Your task to perform on an android device: turn off notifications settings in the gmail app Image 0: 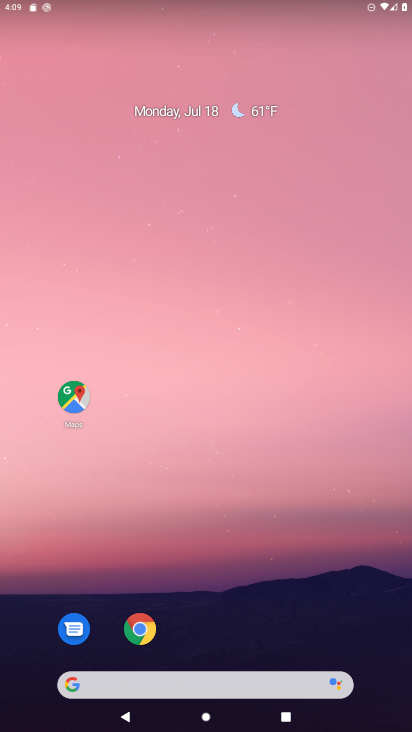
Step 0: drag from (246, 667) to (268, 337)
Your task to perform on an android device: turn off notifications settings in the gmail app Image 1: 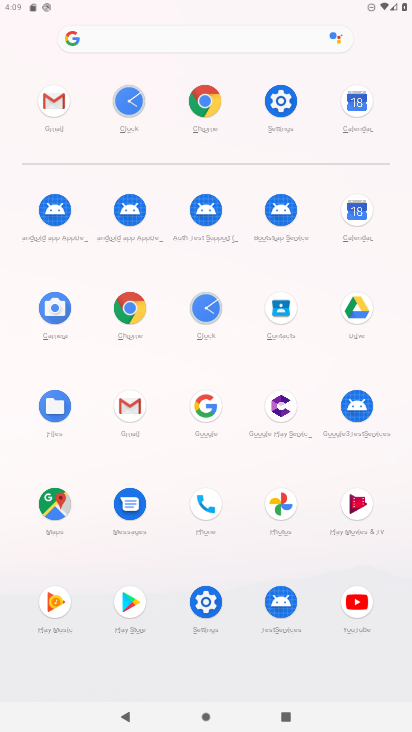
Step 1: click (126, 416)
Your task to perform on an android device: turn off notifications settings in the gmail app Image 2: 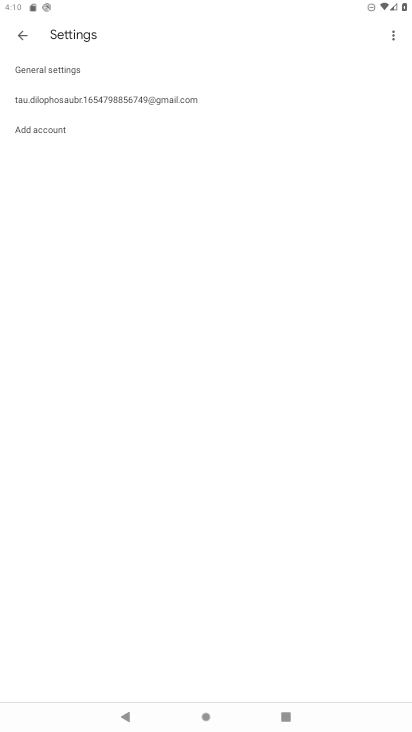
Step 2: click (68, 92)
Your task to perform on an android device: turn off notifications settings in the gmail app Image 3: 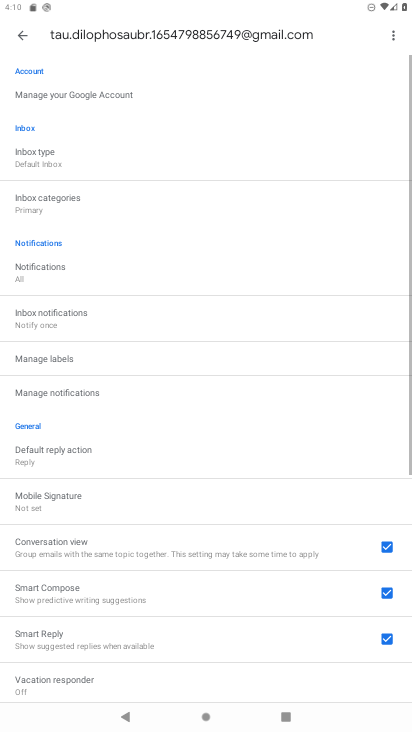
Step 3: click (70, 400)
Your task to perform on an android device: turn off notifications settings in the gmail app Image 4: 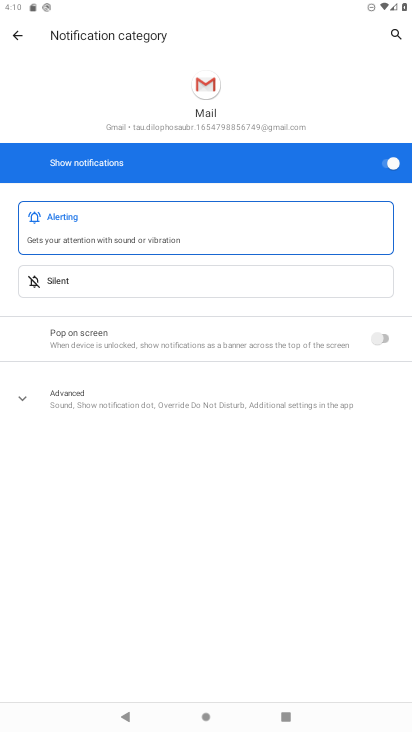
Step 4: click (384, 167)
Your task to perform on an android device: turn off notifications settings in the gmail app Image 5: 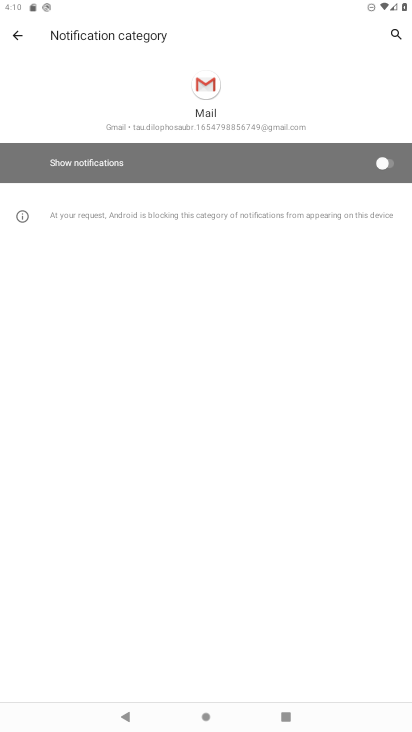
Step 5: task complete